Your task to perform on an android device: Search for Italian restaurants on Maps Image 0: 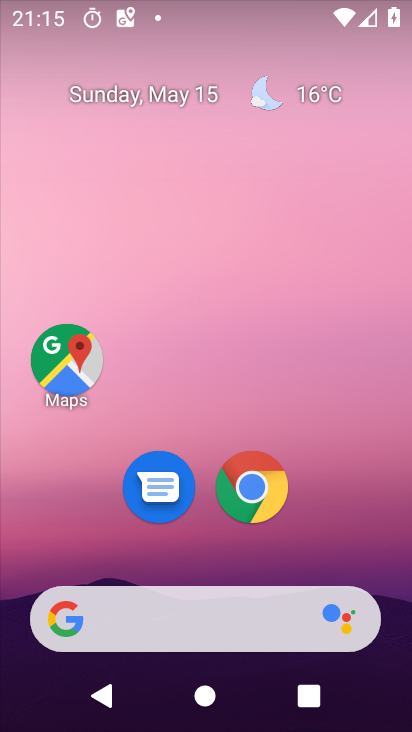
Step 0: drag from (398, 497) to (395, 250)
Your task to perform on an android device: Search for Italian restaurants on Maps Image 1: 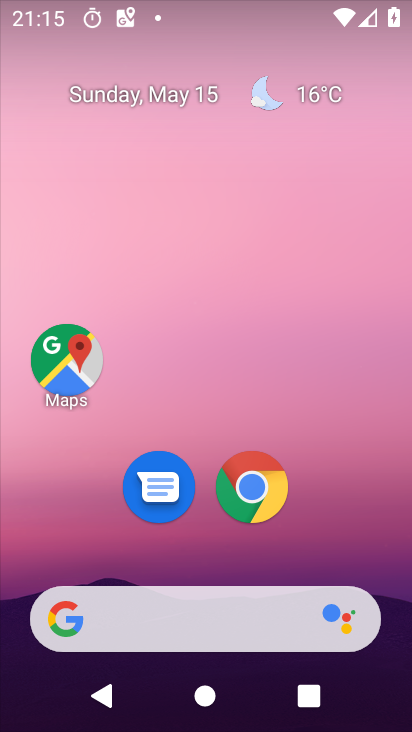
Step 1: click (69, 343)
Your task to perform on an android device: Search for Italian restaurants on Maps Image 2: 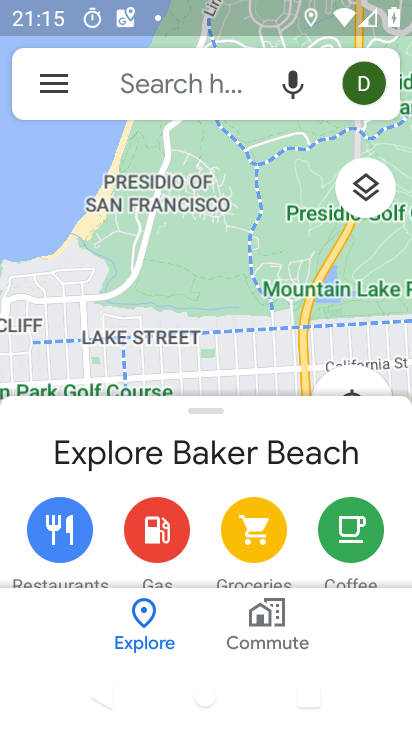
Step 2: click (224, 79)
Your task to perform on an android device: Search for Italian restaurants on Maps Image 3: 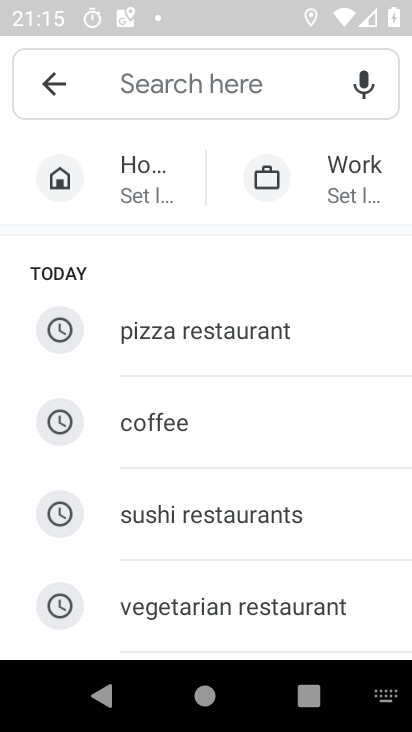
Step 3: type "Italian restaurants"
Your task to perform on an android device: Search for Italian restaurants on Maps Image 4: 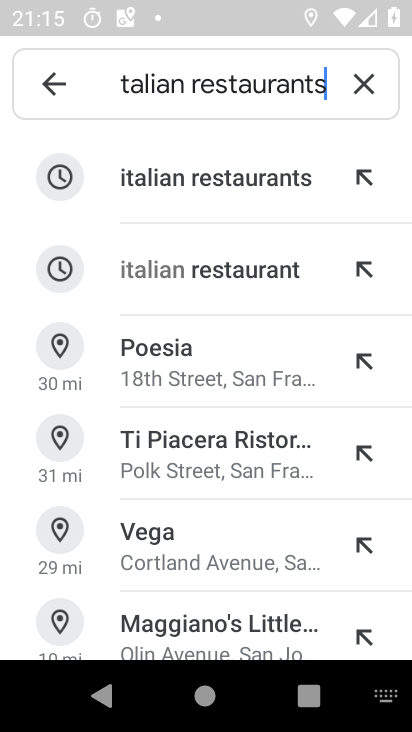
Step 4: click (191, 174)
Your task to perform on an android device: Search for Italian restaurants on Maps Image 5: 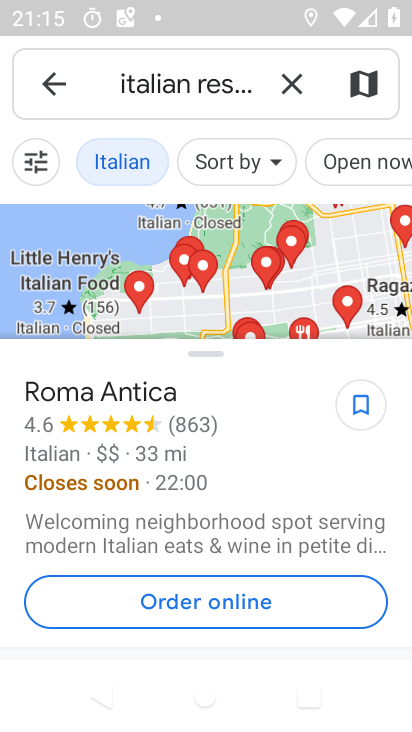
Step 5: task complete